Your task to perform on an android device: turn off location Image 0: 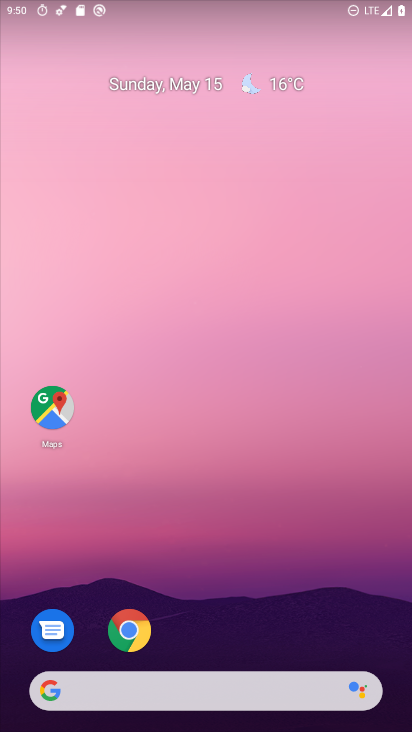
Step 0: drag from (192, 593) to (254, 245)
Your task to perform on an android device: turn off location Image 1: 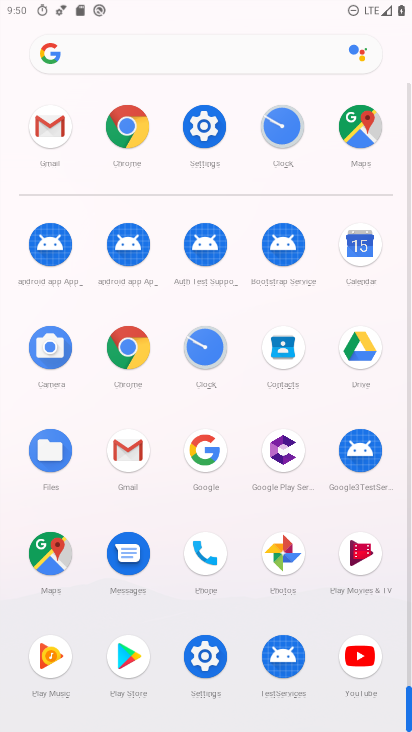
Step 1: click (199, 134)
Your task to perform on an android device: turn off location Image 2: 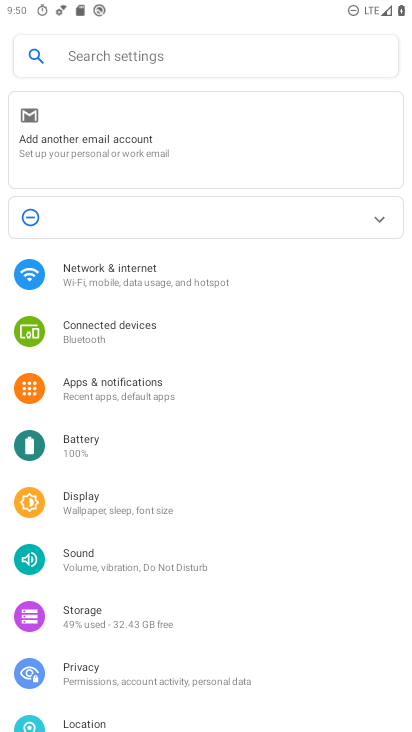
Step 2: drag from (162, 704) to (162, 446)
Your task to perform on an android device: turn off location Image 3: 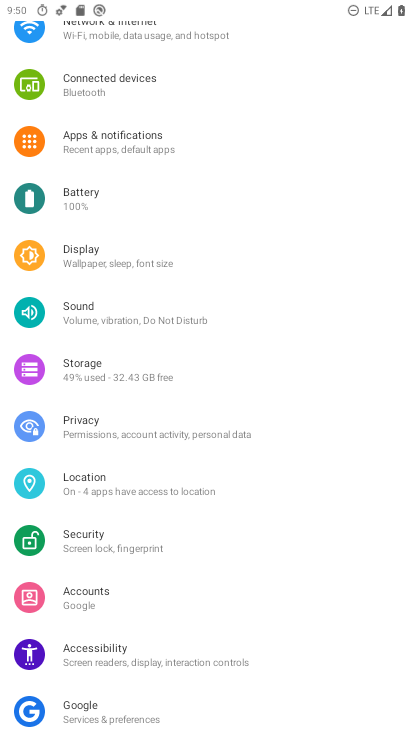
Step 3: click (148, 494)
Your task to perform on an android device: turn off location Image 4: 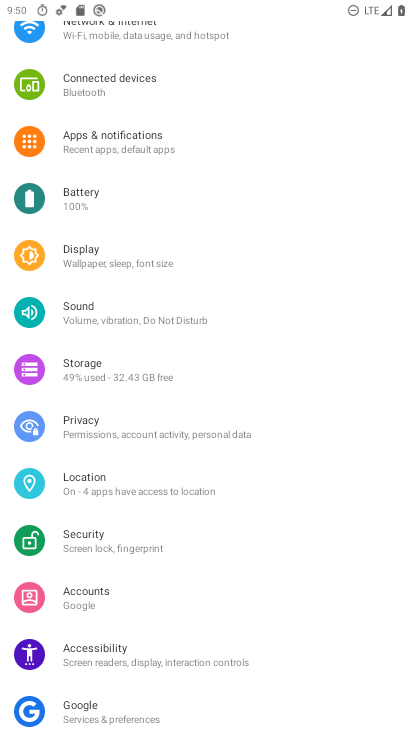
Step 4: click (148, 494)
Your task to perform on an android device: turn off location Image 5: 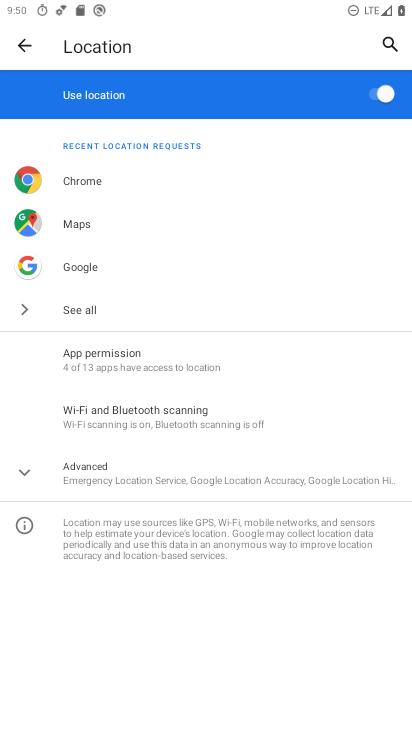
Step 5: click (377, 100)
Your task to perform on an android device: turn off location Image 6: 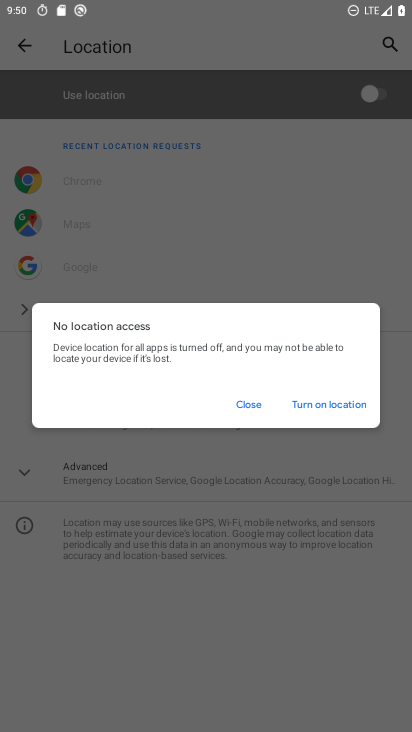
Step 6: task complete